Your task to perform on an android device: Show me the alarms in the clock app Image 0: 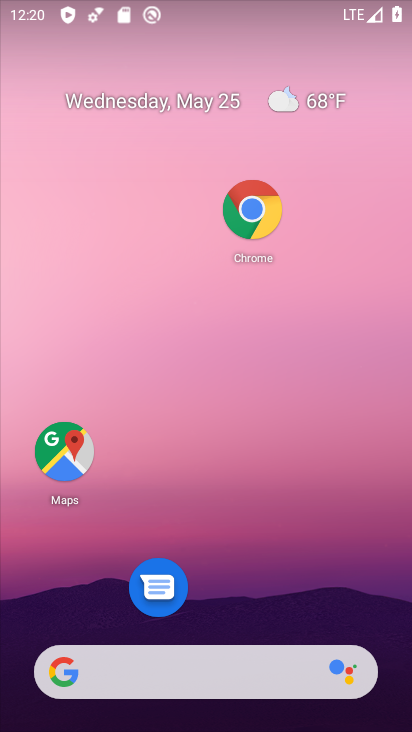
Step 0: press home button
Your task to perform on an android device: Show me the alarms in the clock app Image 1: 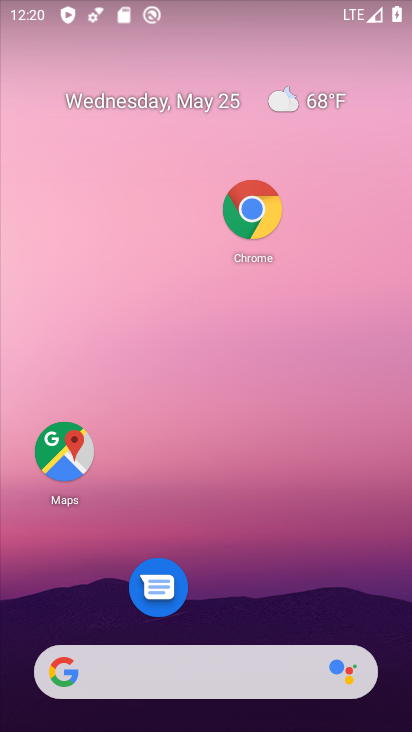
Step 1: press home button
Your task to perform on an android device: Show me the alarms in the clock app Image 2: 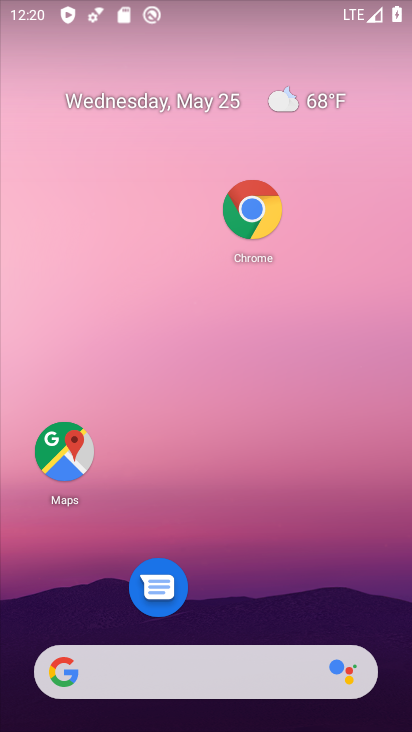
Step 2: drag from (234, 616) to (277, 176)
Your task to perform on an android device: Show me the alarms in the clock app Image 3: 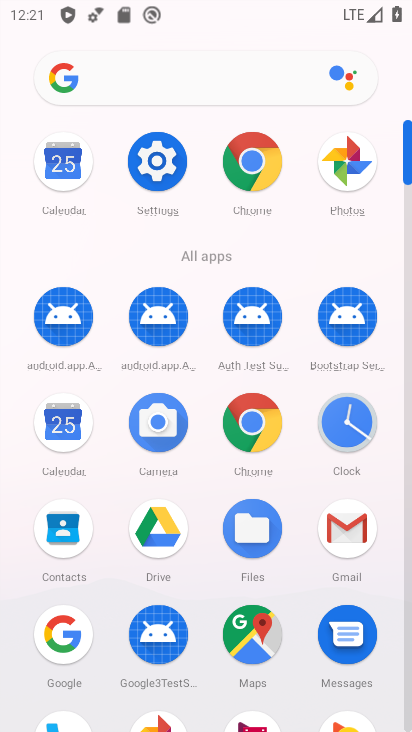
Step 3: click (358, 414)
Your task to perform on an android device: Show me the alarms in the clock app Image 4: 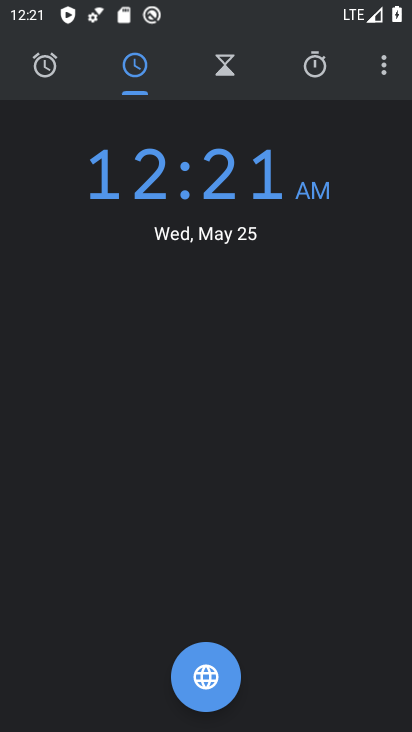
Step 4: click (53, 70)
Your task to perform on an android device: Show me the alarms in the clock app Image 5: 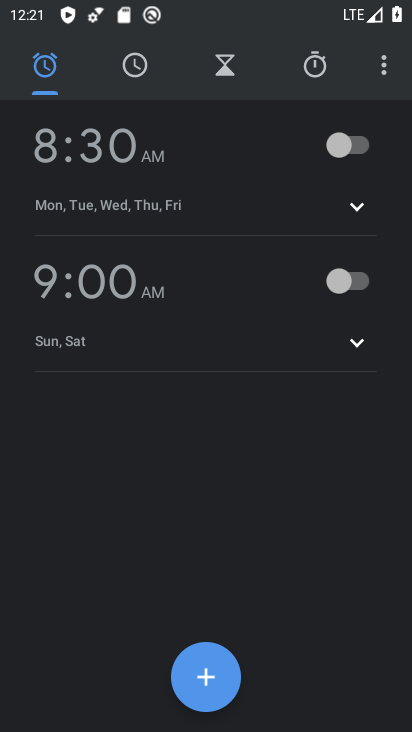
Step 5: click (134, 134)
Your task to perform on an android device: Show me the alarms in the clock app Image 6: 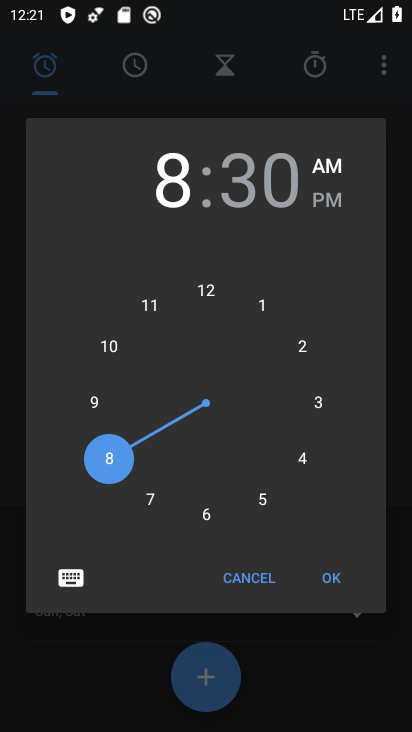
Step 6: click (335, 575)
Your task to perform on an android device: Show me the alarms in the clock app Image 7: 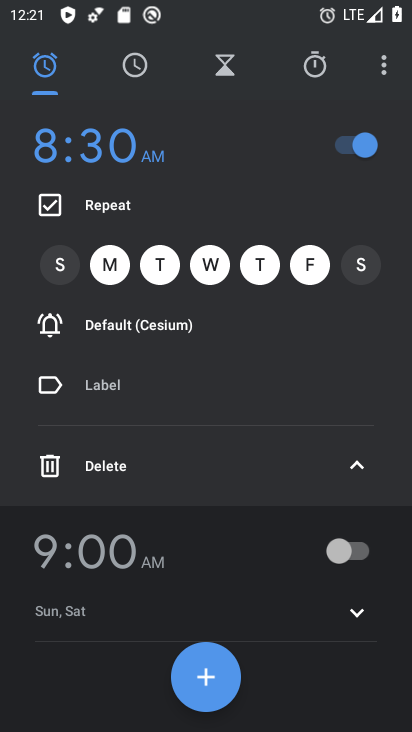
Step 7: task complete